Your task to perform on an android device: What's the weather going to be tomorrow? Image 0: 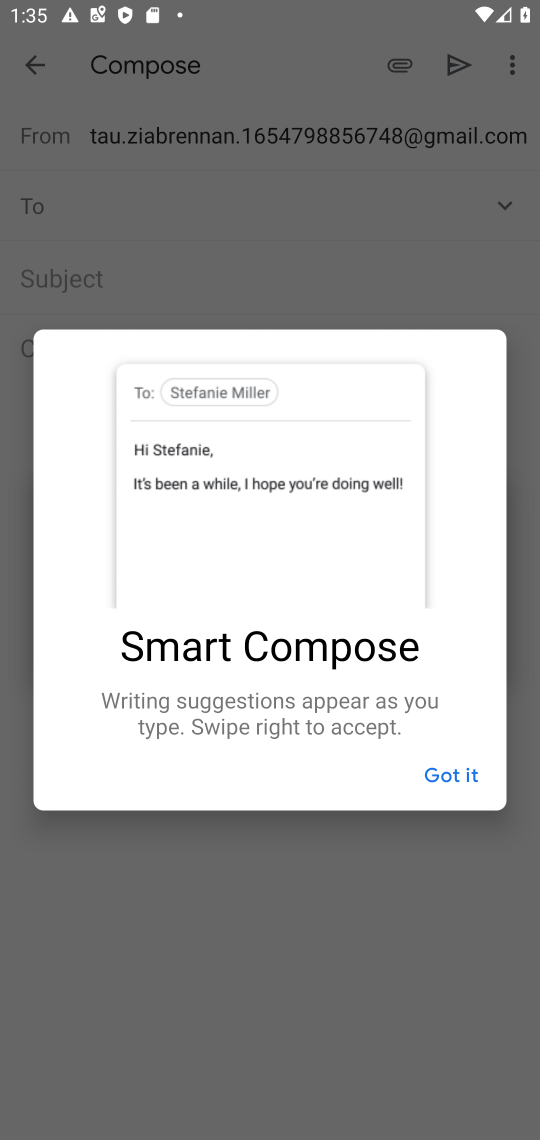
Step 0: press home button
Your task to perform on an android device: What's the weather going to be tomorrow? Image 1: 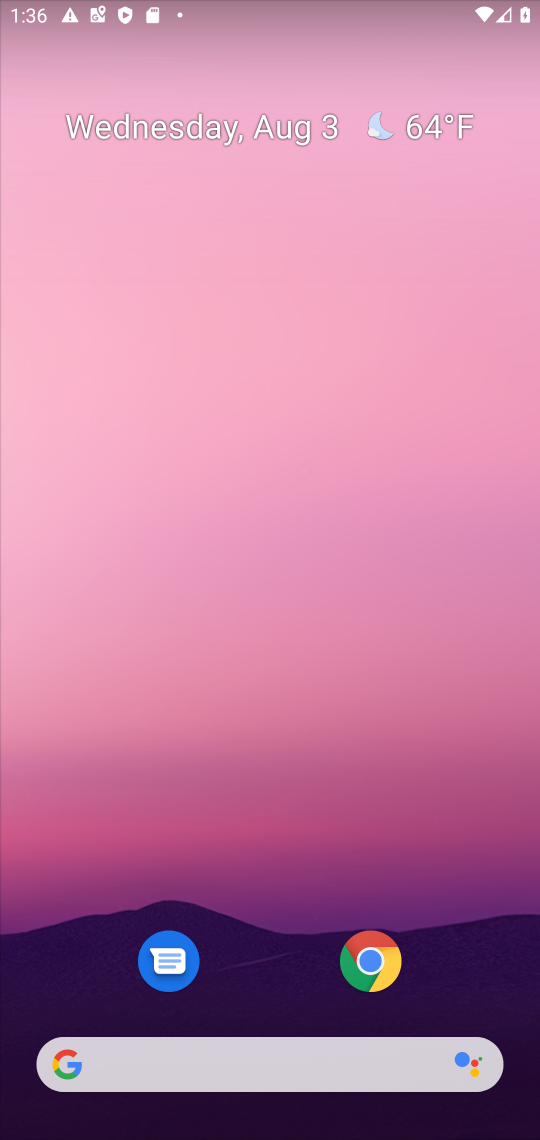
Step 1: click (250, 1068)
Your task to perform on an android device: What's the weather going to be tomorrow? Image 2: 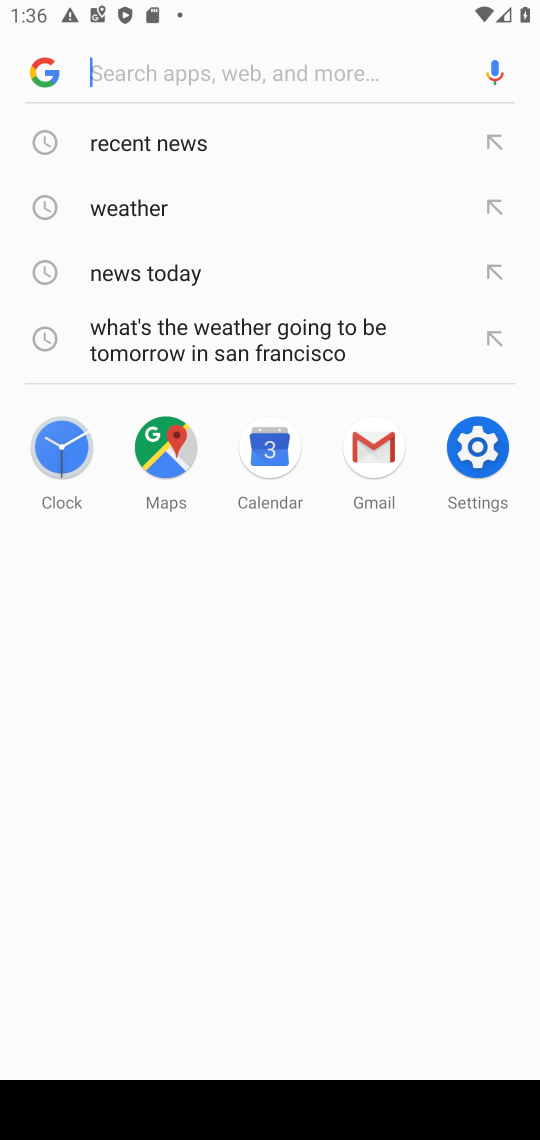
Step 2: click (142, 215)
Your task to perform on an android device: What's the weather going to be tomorrow? Image 3: 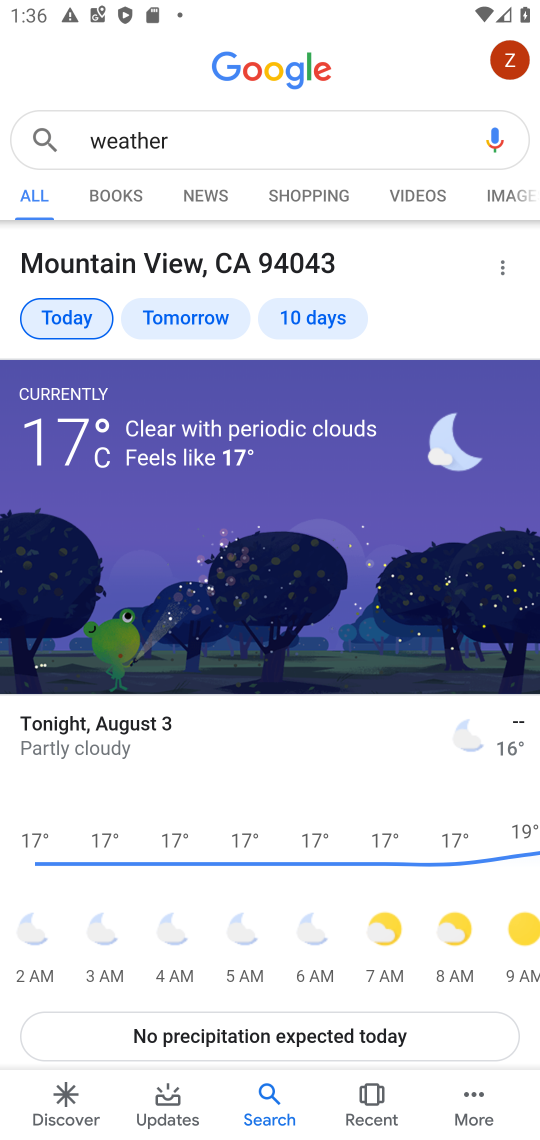
Step 3: click (185, 321)
Your task to perform on an android device: What's the weather going to be tomorrow? Image 4: 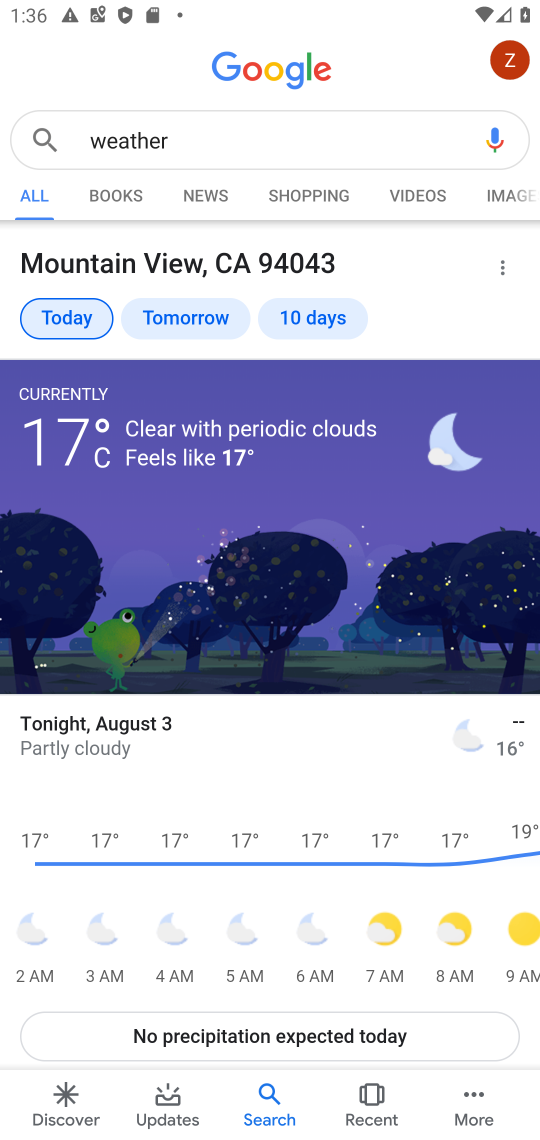
Step 4: click (190, 318)
Your task to perform on an android device: What's the weather going to be tomorrow? Image 5: 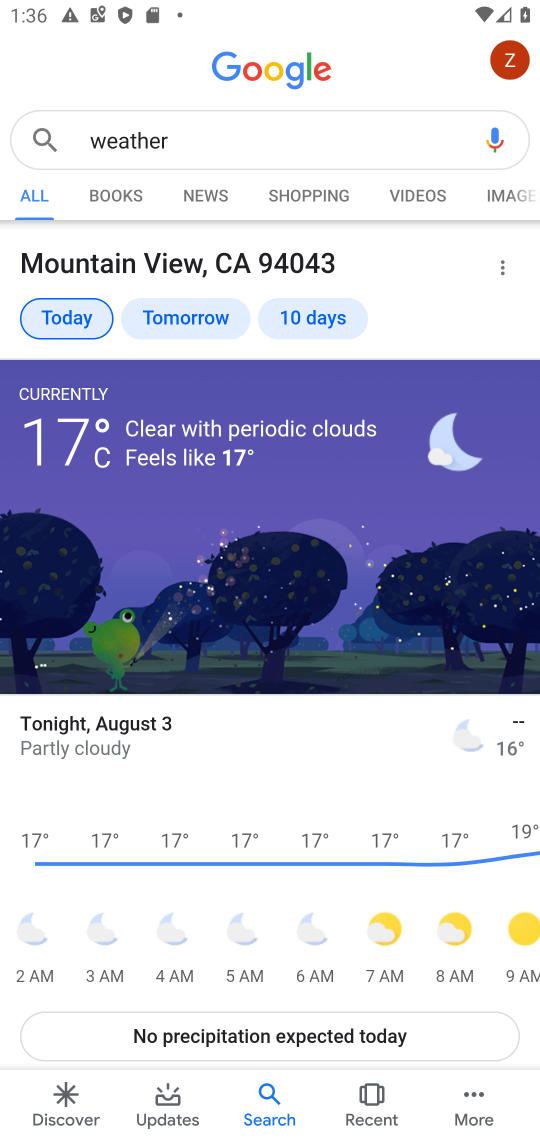
Step 5: click (190, 318)
Your task to perform on an android device: What's the weather going to be tomorrow? Image 6: 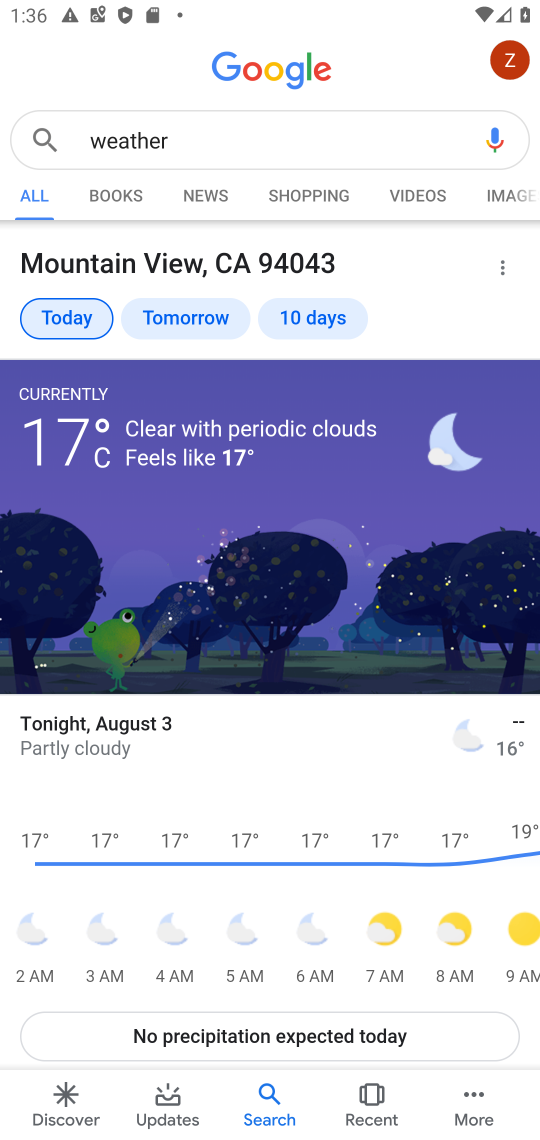
Step 6: task complete